Your task to perform on an android device: toggle translation in the chrome app Image 0: 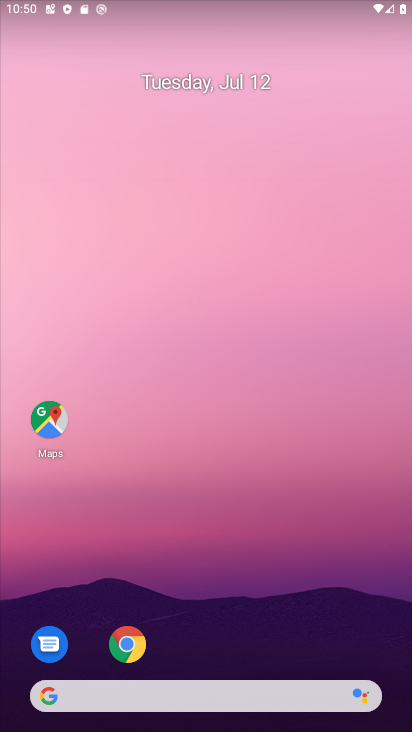
Step 0: drag from (277, 643) to (227, 54)
Your task to perform on an android device: toggle translation in the chrome app Image 1: 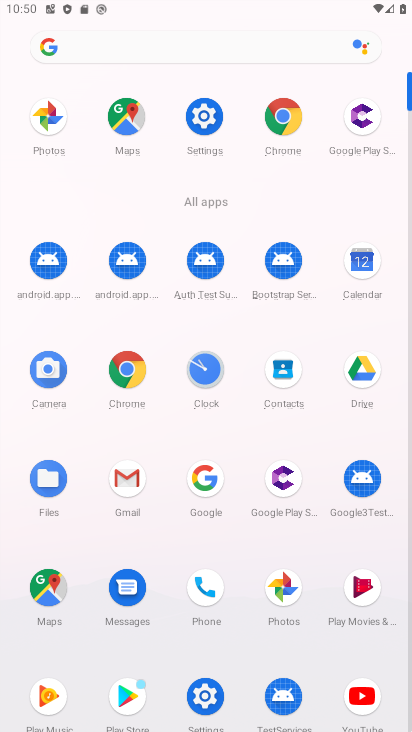
Step 1: click (302, 121)
Your task to perform on an android device: toggle translation in the chrome app Image 2: 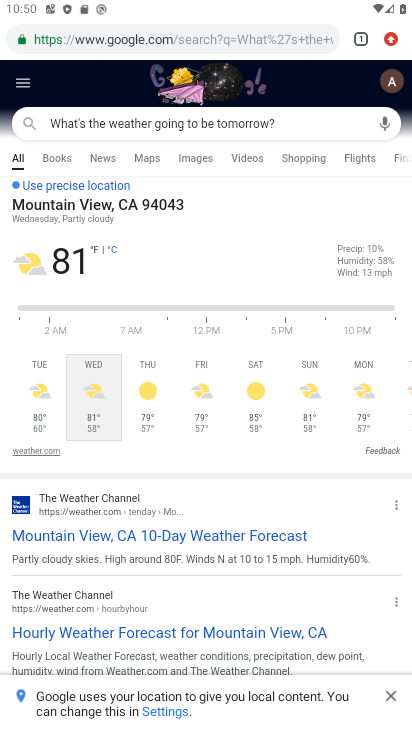
Step 2: click (391, 33)
Your task to perform on an android device: toggle translation in the chrome app Image 3: 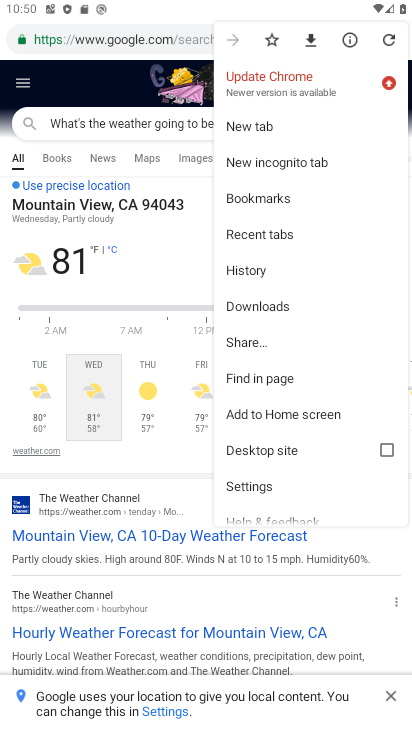
Step 3: click (299, 493)
Your task to perform on an android device: toggle translation in the chrome app Image 4: 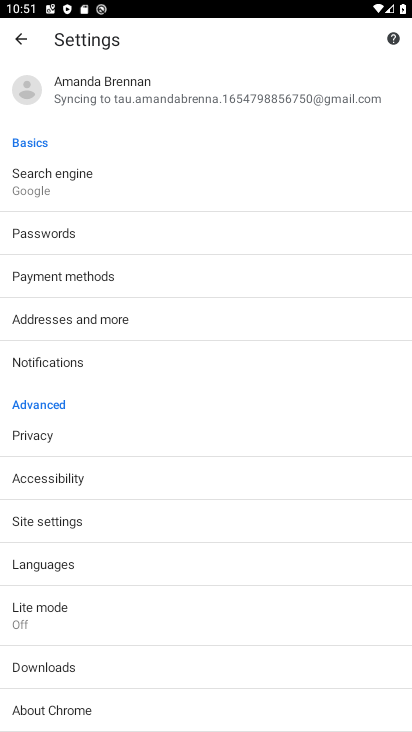
Step 4: click (165, 558)
Your task to perform on an android device: toggle translation in the chrome app Image 5: 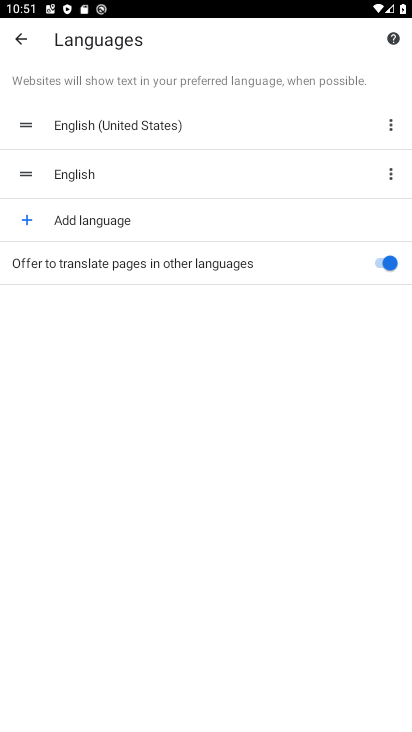
Step 5: click (377, 259)
Your task to perform on an android device: toggle translation in the chrome app Image 6: 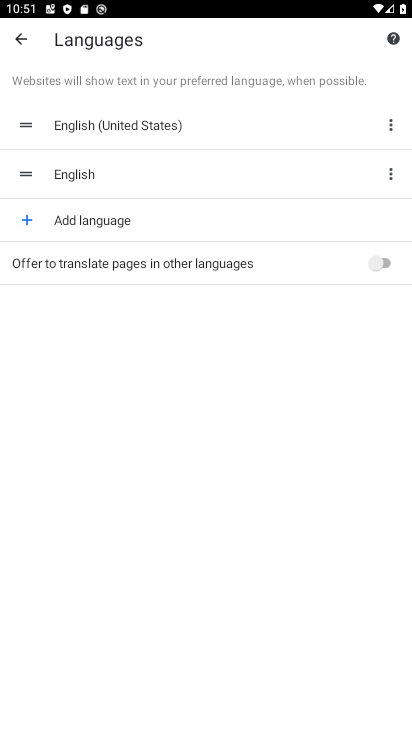
Step 6: task complete